Your task to perform on an android device: Open Google Maps and go to "Timeline" Image 0: 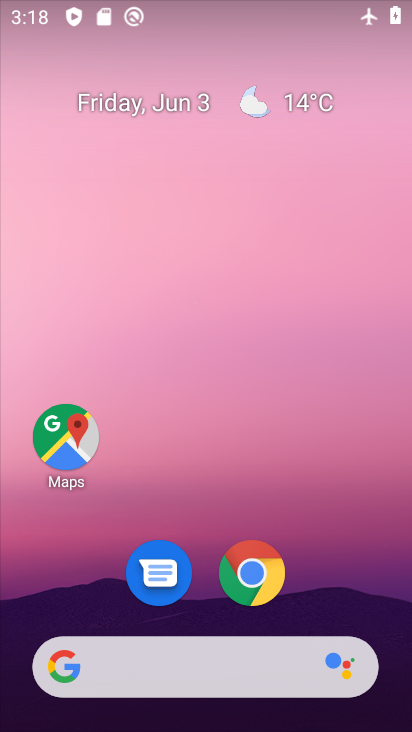
Step 0: drag from (201, 615) to (216, 87)
Your task to perform on an android device: Open Google Maps and go to "Timeline" Image 1: 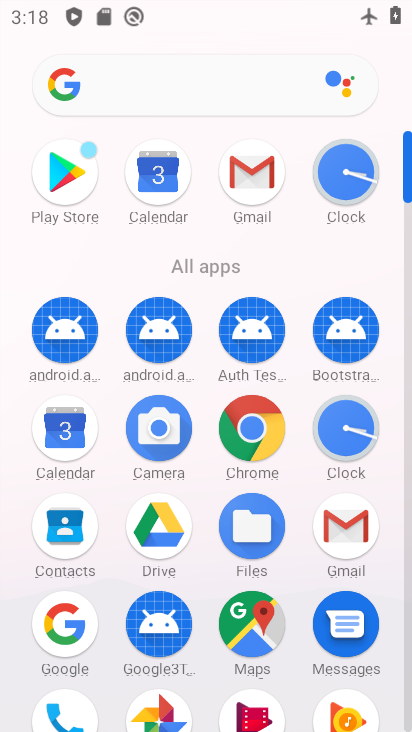
Step 1: drag from (197, 492) to (237, 138)
Your task to perform on an android device: Open Google Maps and go to "Timeline" Image 2: 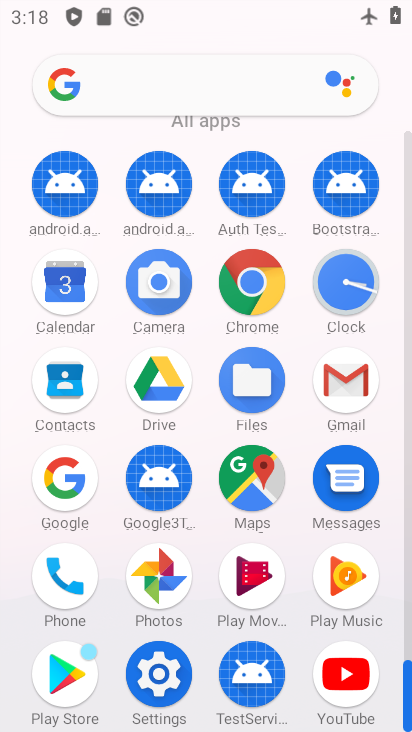
Step 2: click (258, 493)
Your task to perform on an android device: Open Google Maps and go to "Timeline" Image 3: 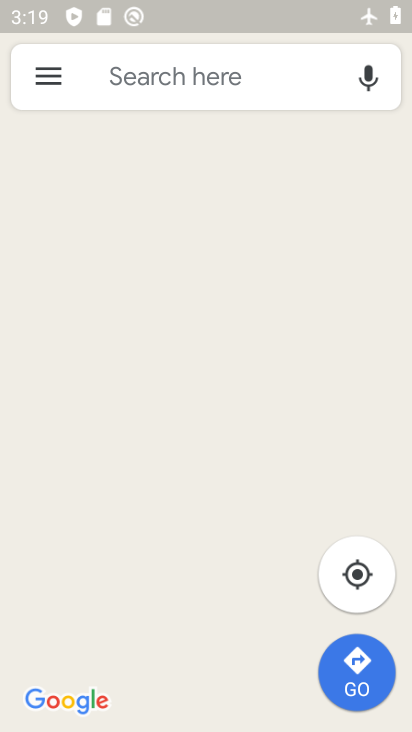
Step 3: click (44, 75)
Your task to perform on an android device: Open Google Maps and go to "Timeline" Image 4: 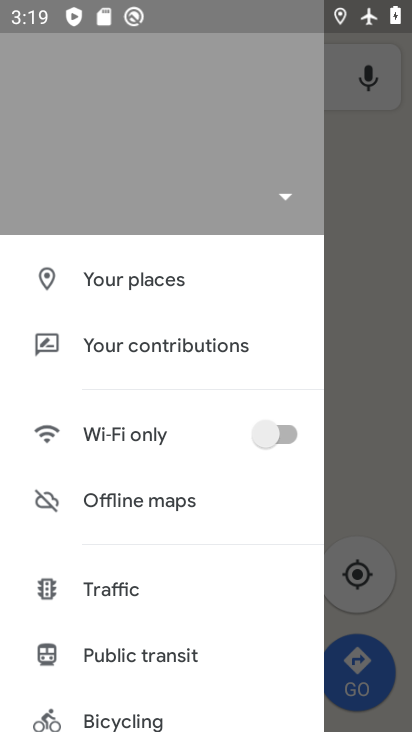
Step 4: task complete